Your task to perform on an android device: What's the weather going to be this weekend? Image 0: 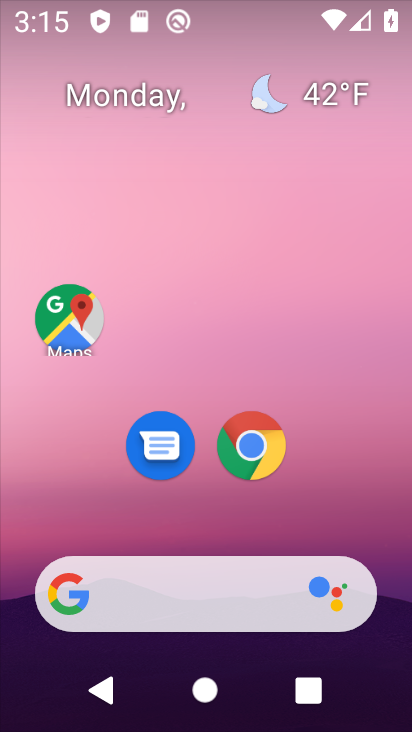
Step 0: drag from (17, 502) to (215, 39)
Your task to perform on an android device: What's the weather going to be this weekend? Image 1: 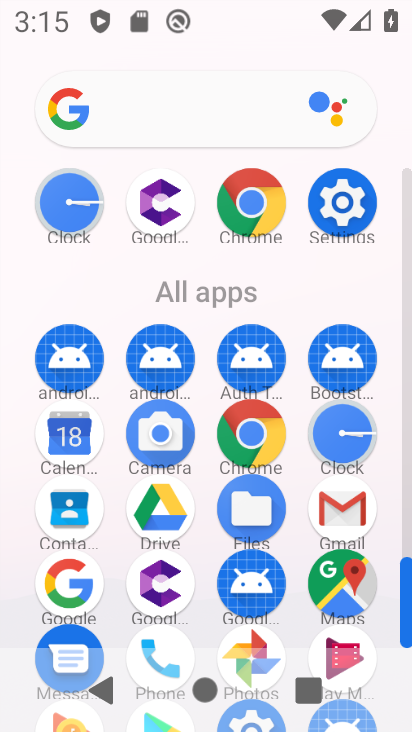
Step 1: press home button
Your task to perform on an android device: What's the weather going to be this weekend? Image 2: 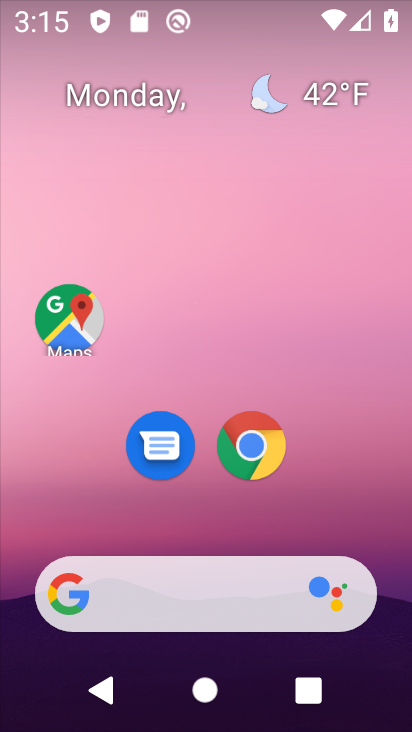
Step 2: click (327, 95)
Your task to perform on an android device: What's the weather going to be this weekend? Image 3: 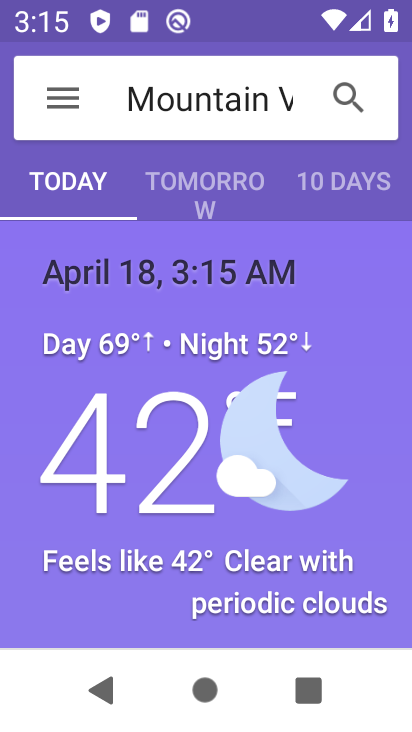
Step 3: drag from (132, 539) to (142, 227)
Your task to perform on an android device: What's the weather going to be this weekend? Image 4: 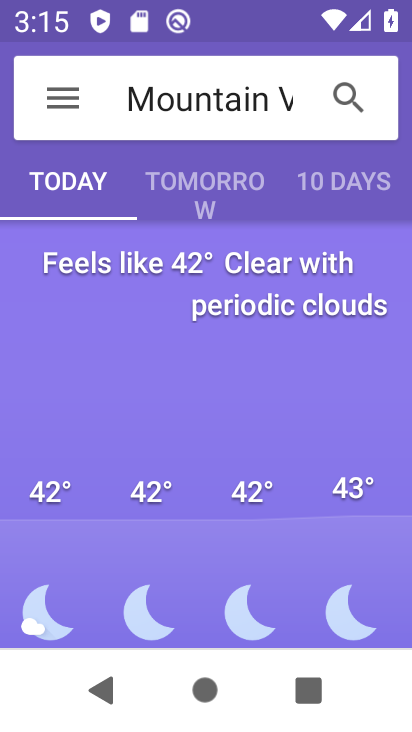
Step 4: drag from (126, 549) to (152, 308)
Your task to perform on an android device: What's the weather going to be this weekend? Image 5: 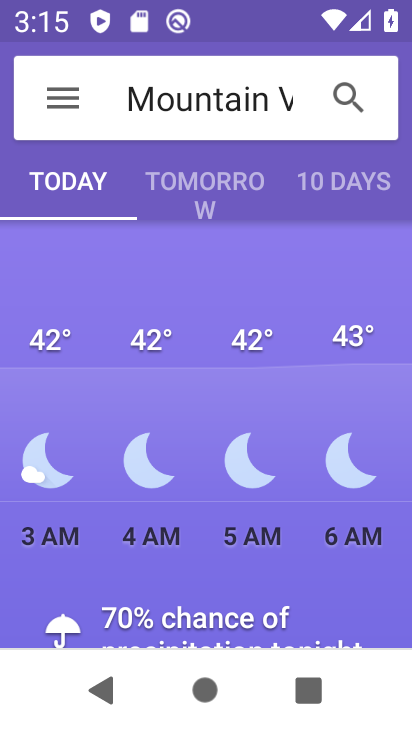
Step 5: drag from (143, 587) to (129, 182)
Your task to perform on an android device: What's the weather going to be this weekend? Image 6: 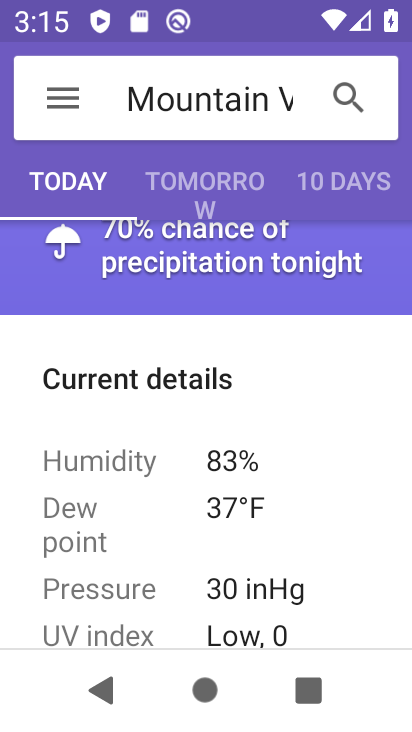
Step 6: drag from (198, 572) to (231, 333)
Your task to perform on an android device: What's the weather going to be this weekend? Image 7: 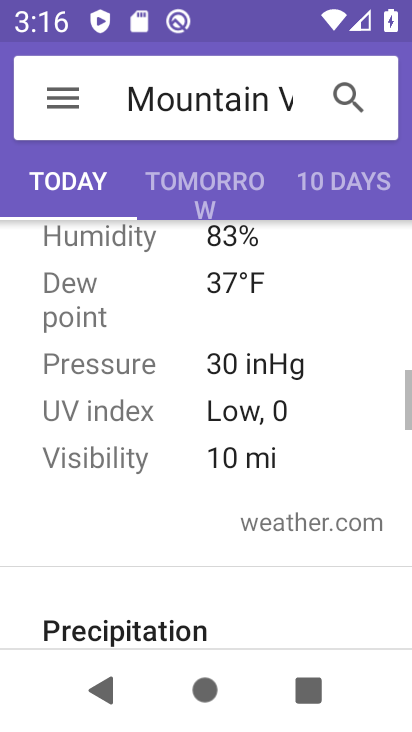
Step 7: drag from (231, 333) to (251, 708)
Your task to perform on an android device: What's the weather going to be this weekend? Image 8: 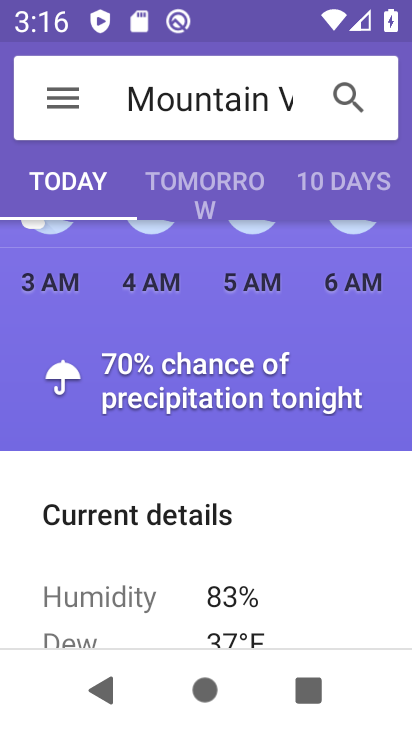
Step 8: drag from (198, 331) to (204, 531)
Your task to perform on an android device: What's the weather going to be this weekend? Image 9: 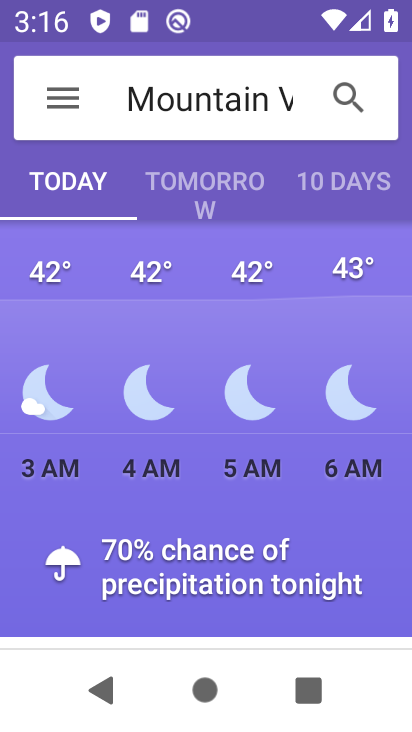
Step 9: click (326, 171)
Your task to perform on an android device: What's the weather going to be this weekend? Image 10: 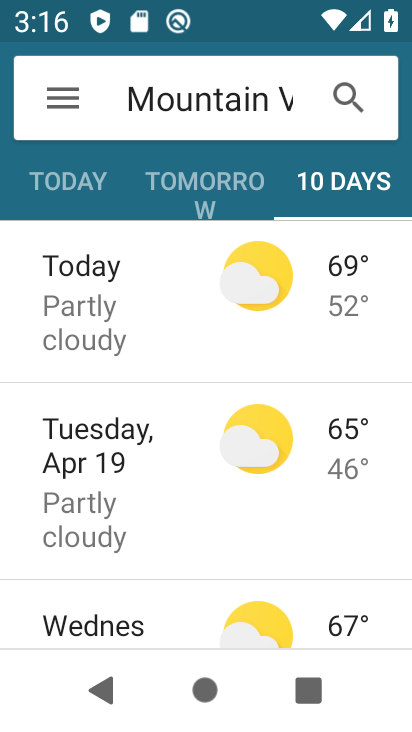
Step 10: task complete